Your task to perform on an android device: check the backup settings in the google photos Image 0: 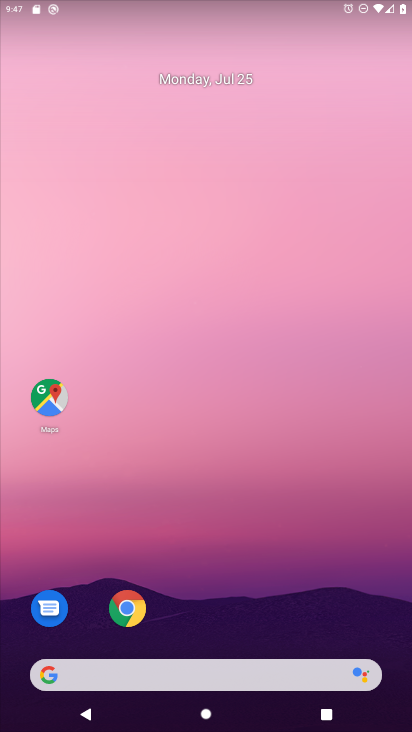
Step 0: drag from (158, 694) to (132, 317)
Your task to perform on an android device: check the backup settings in the google photos Image 1: 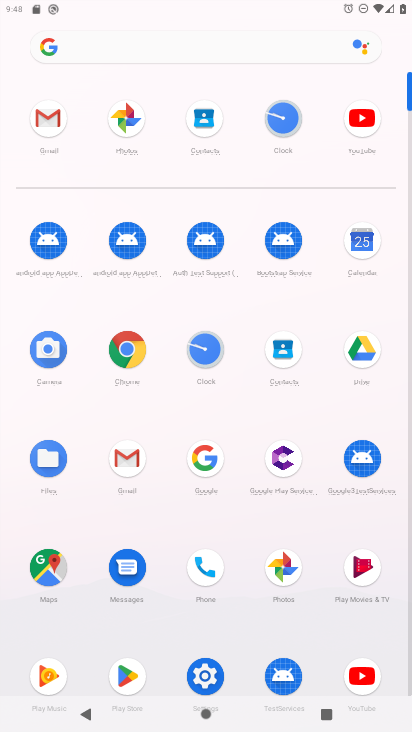
Step 1: click (127, 121)
Your task to perform on an android device: check the backup settings in the google photos Image 2: 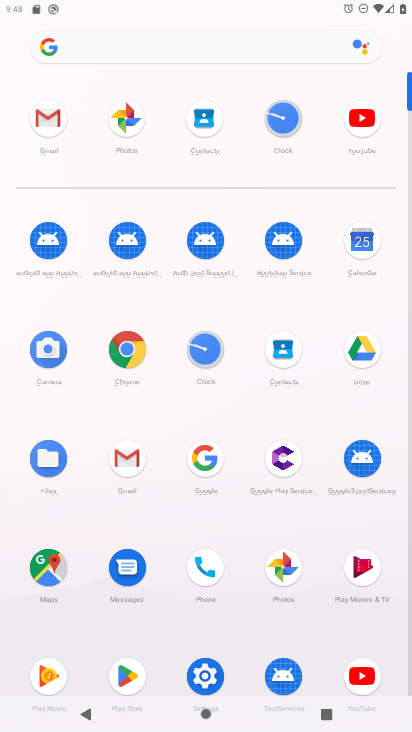
Step 2: click (127, 121)
Your task to perform on an android device: check the backup settings in the google photos Image 3: 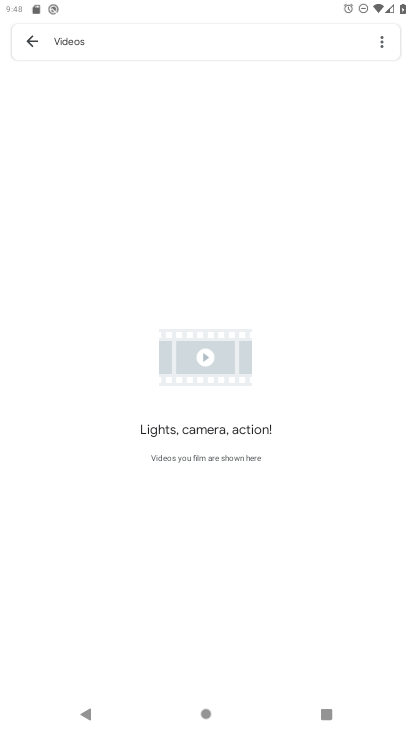
Step 3: click (31, 38)
Your task to perform on an android device: check the backup settings in the google photos Image 4: 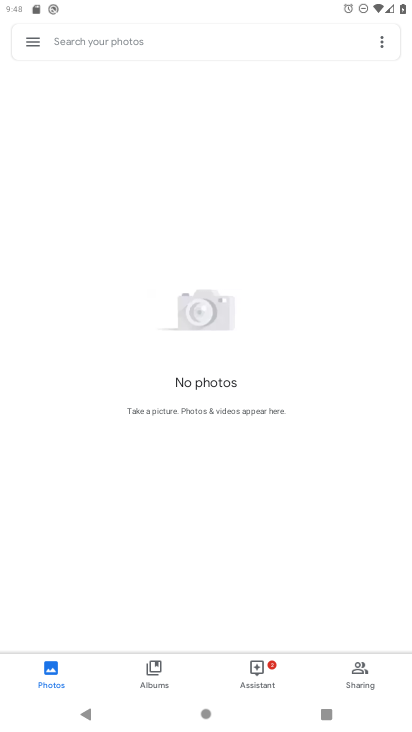
Step 4: click (31, 42)
Your task to perform on an android device: check the backup settings in the google photos Image 5: 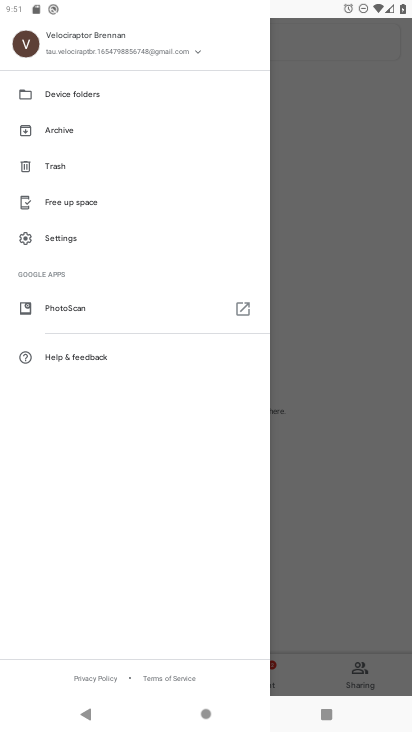
Step 5: click (68, 233)
Your task to perform on an android device: check the backup settings in the google photos Image 6: 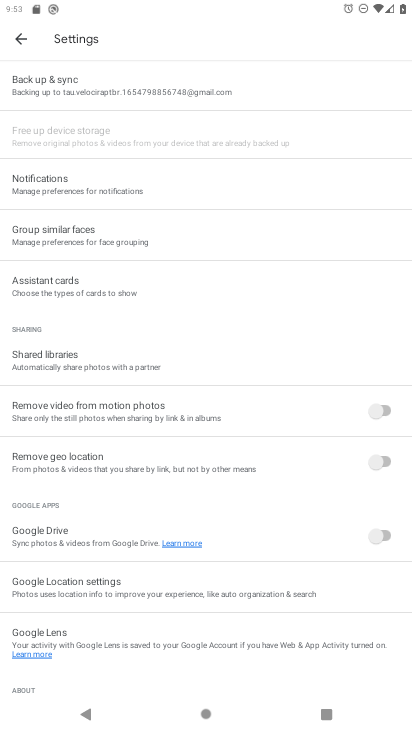
Step 6: task complete